Your task to perform on an android device: turn on the 12-hour format for clock Image 0: 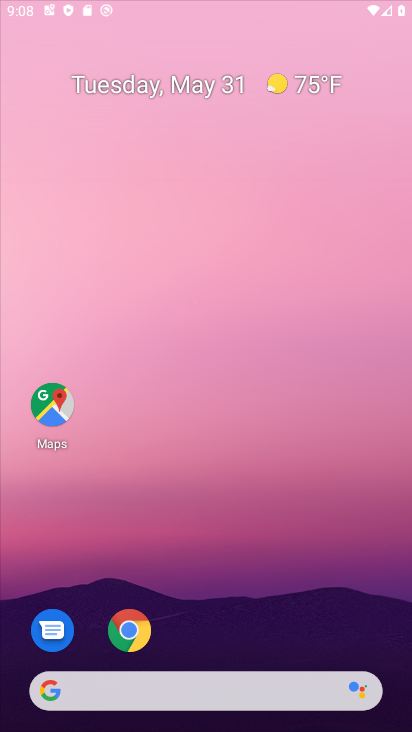
Step 0: drag from (213, 478) to (261, 213)
Your task to perform on an android device: turn on the 12-hour format for clock Image 1: 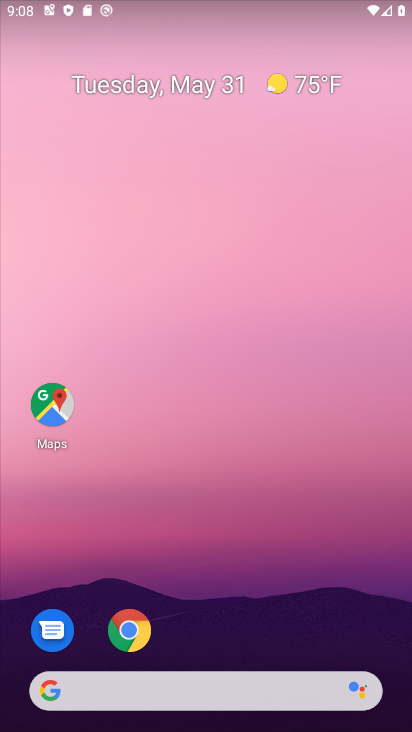
Step 1: drag from (227, 616) to (311, 47)
Your task to perform on an android device: turn on the 12-hour format for clock Image 2: 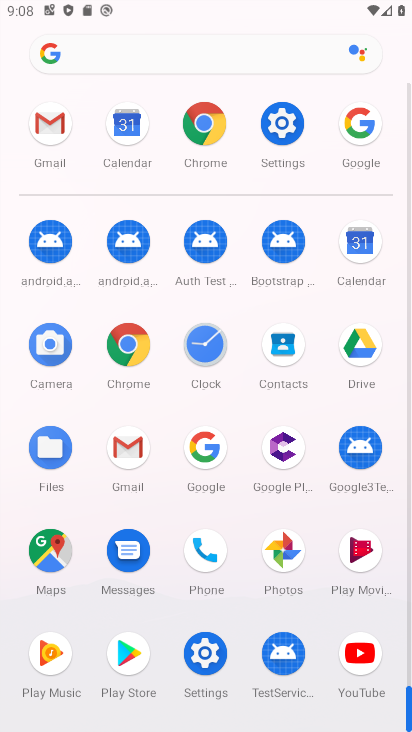
Step 2: click (207, 370)
Your task to perform on an android device: turn on the 12-hour format for clock Image 3: 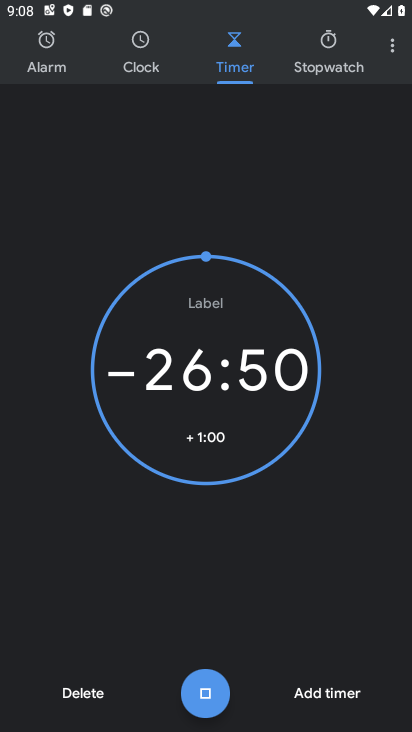
Step 3: click (401, 44)
Your task to perform on an android device: turn on the 12-hour format for clock Image 4: 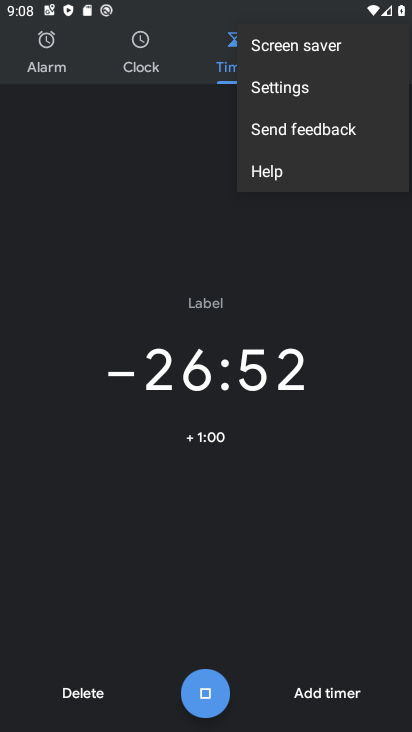
Step 4: click (305, 79)
Your task to perform on an android device: turn on the 12-hour format for clock Image 5: 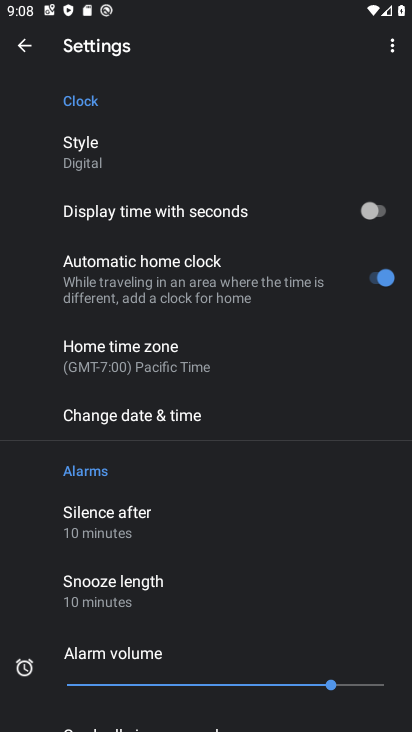
Step 5: click (158, 412)
Your task to perform on an android device: turn on the 12-hour format for clock Image 6: 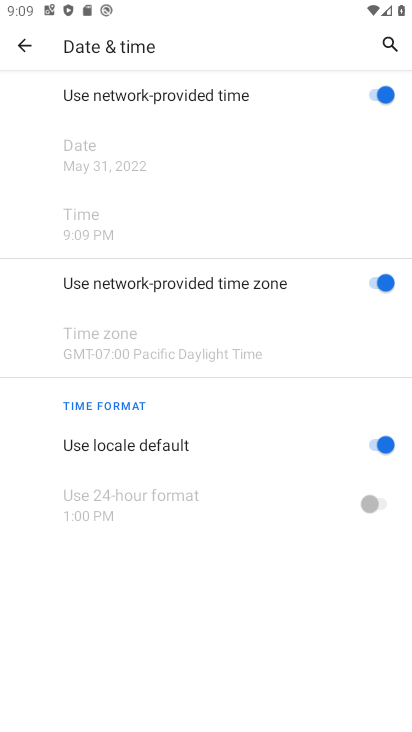
Step 6: task complete